Your task to perform on an android device: Open Reddit.com Image 0: 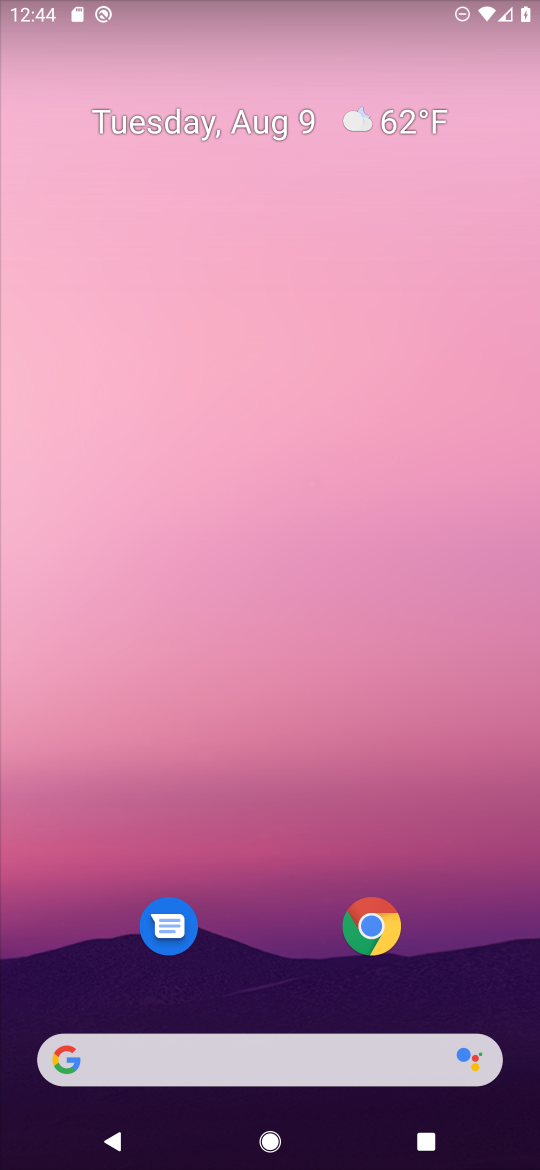
Step 0: click (236, 1063)
Your task to perform on an android device: Open Reddit.com Image 1: 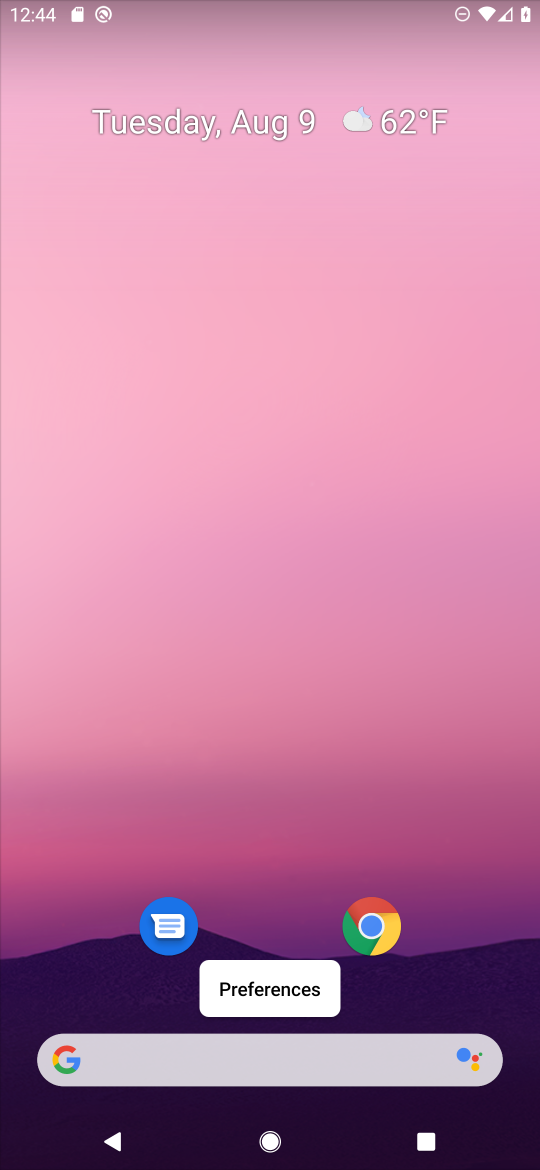
Step 1: click (268, 1059)
Your task to perform on an android device: Open Reddit.com Image 2: 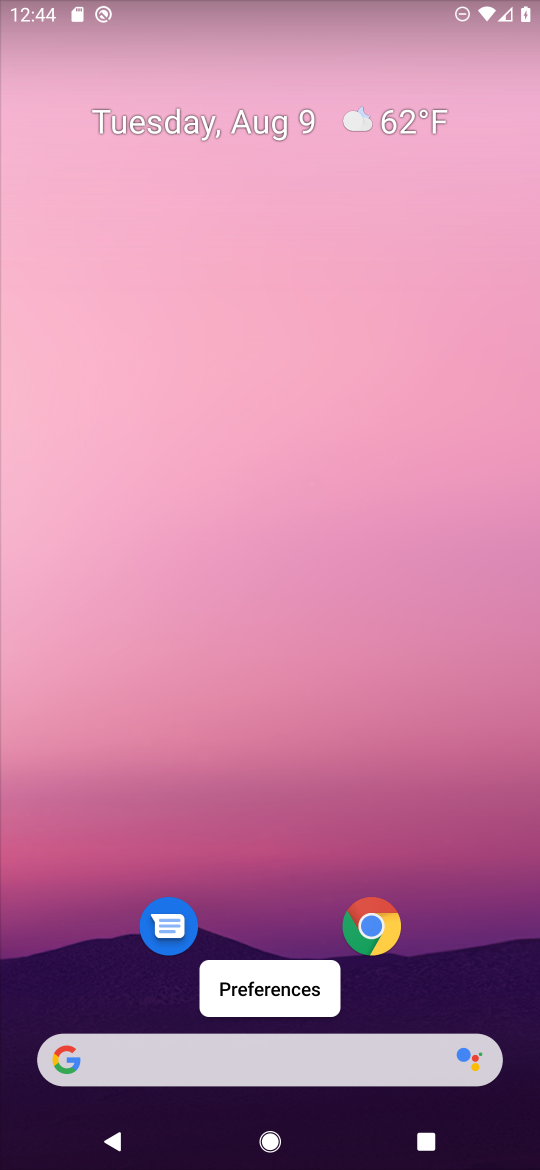
Step 2: click (226, 1074)
Your task to perform on an android device: Open Reddit.com Image 3: 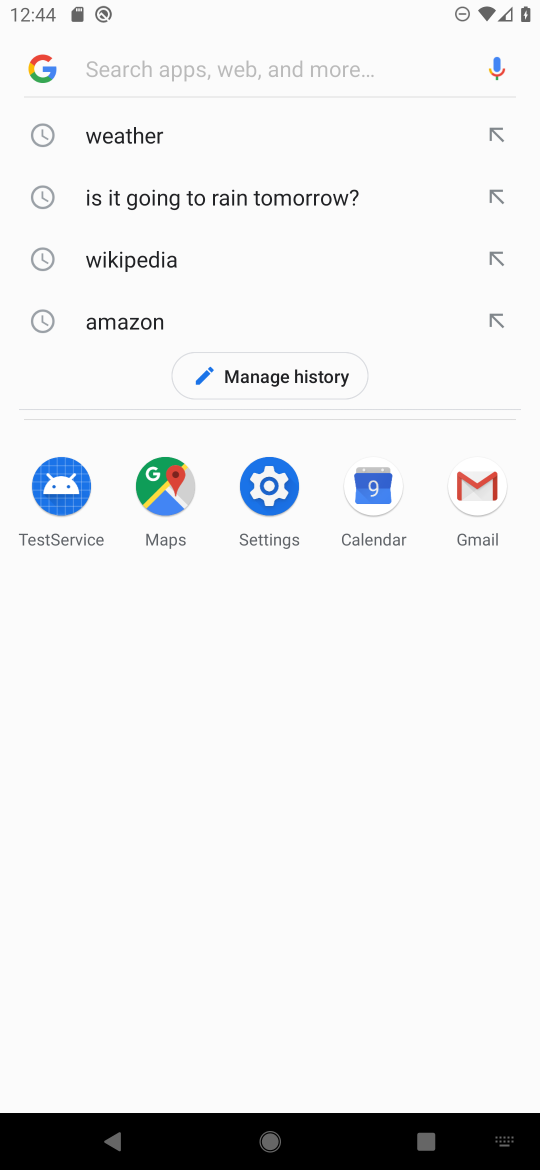
Step 3: click (254, 56)
Your task to perform on an android device: Open Reddit.com Image 4: 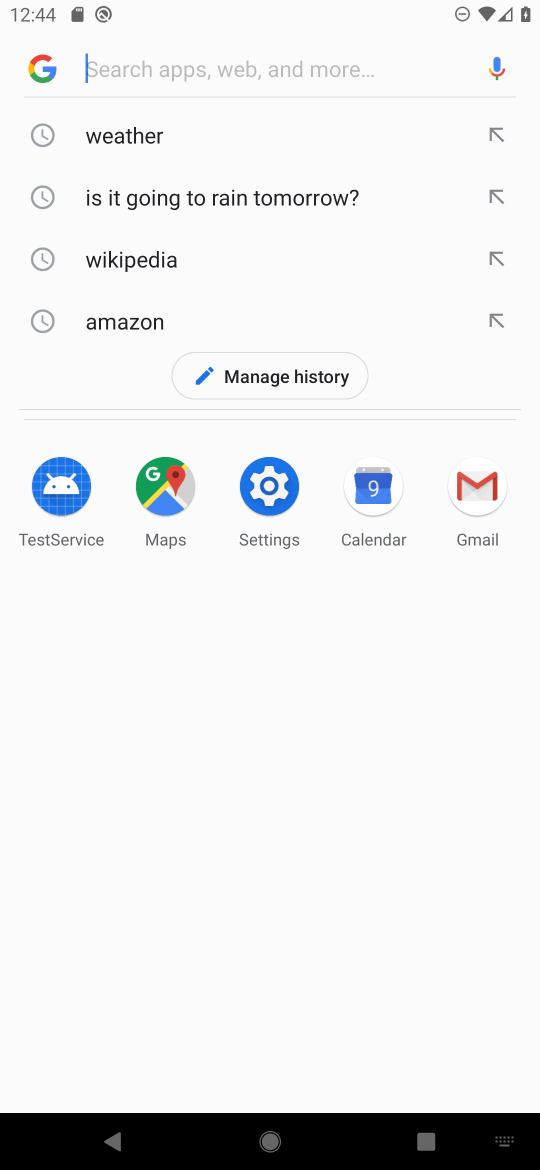
Step 4: type "Reddit.com"
Your task to perform on an android device: Open Reddit.com Image 5: 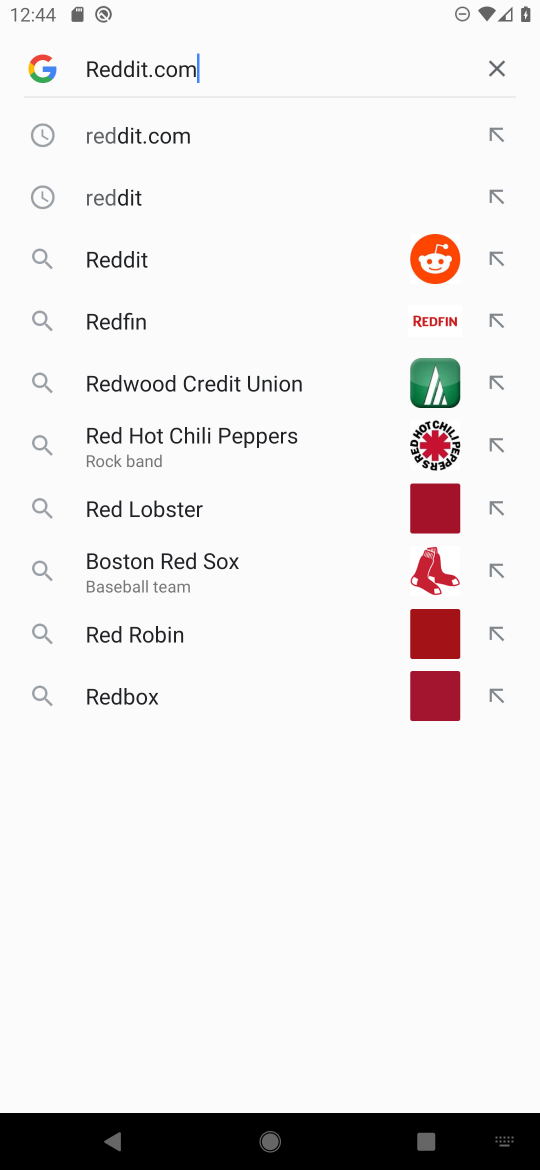
Step 5: type ""
Your task to perform on an android device: Open Reddit.com Image 6: 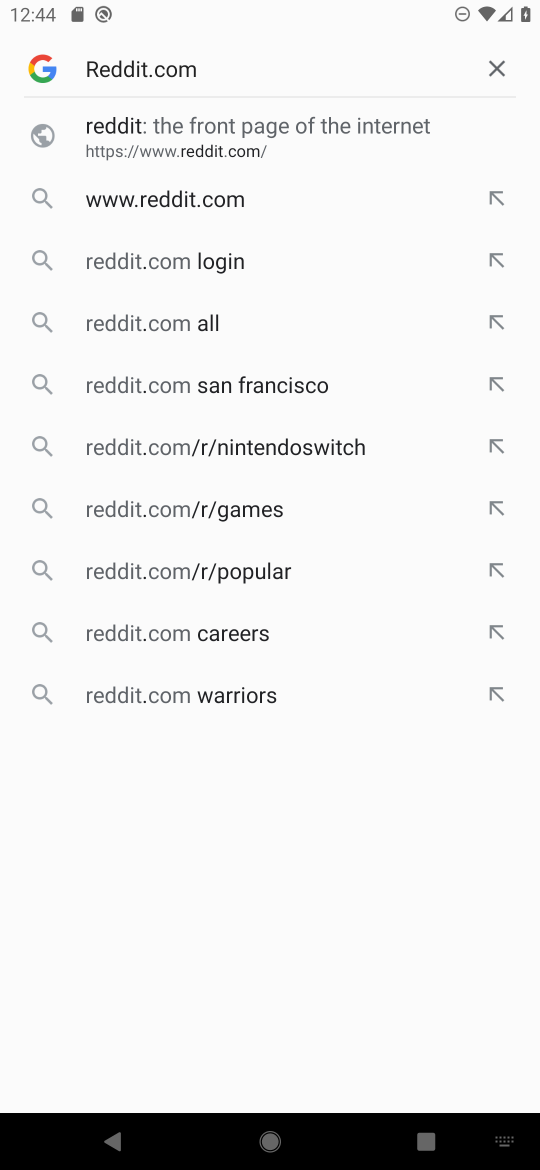
Step 6: click (229, 147)
Your task to perform on an android device: Open Reddit.com Image 7: 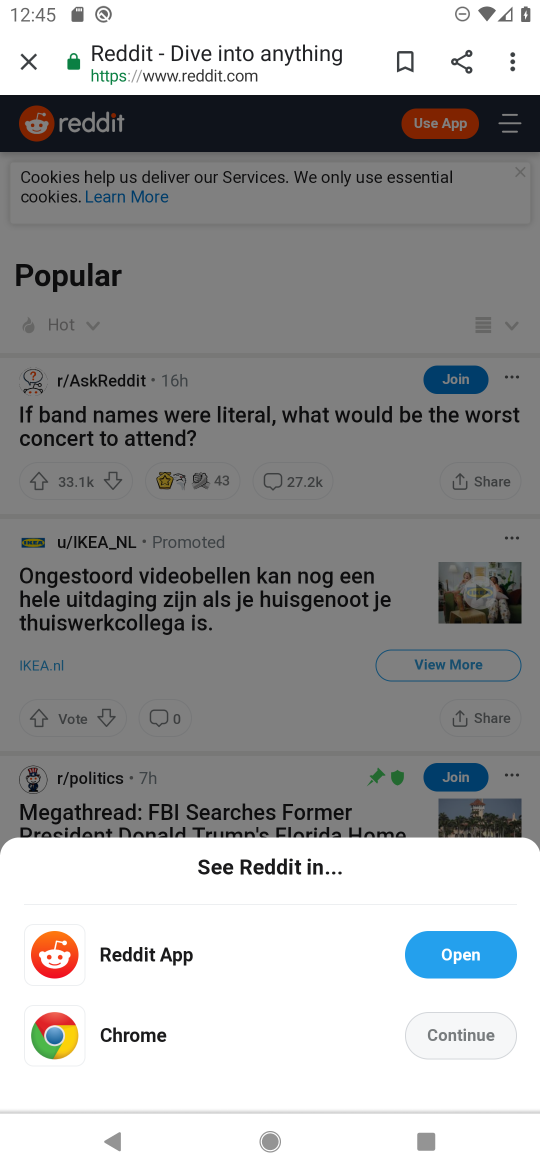
Step 7: task complete